Your task to perform on an android device: Go to location settings Image 0: 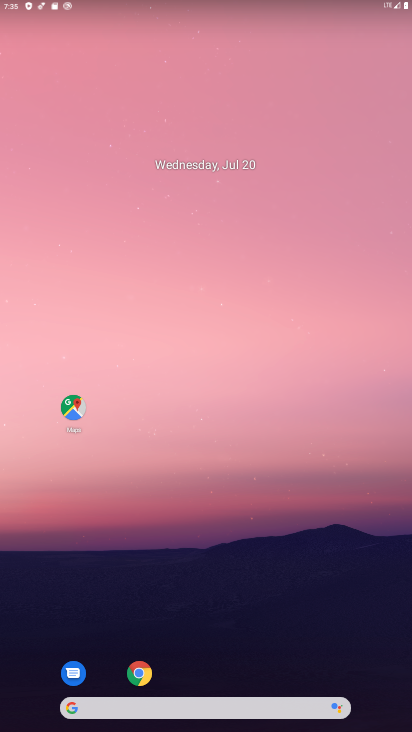
Step 0: drag from (245, 349) to (119, 14)
Your task to perform on an android device: Go to location settings Image 1: 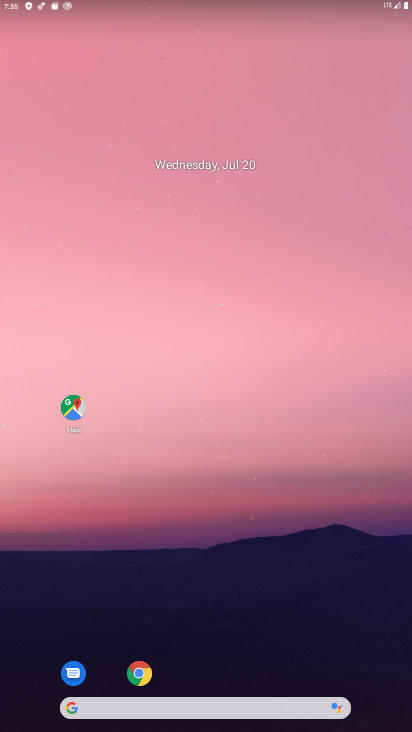
Step 1: drag from (300, 645) to (318, 93)
Your task to perform on an android device: Go to location settings Image 2: 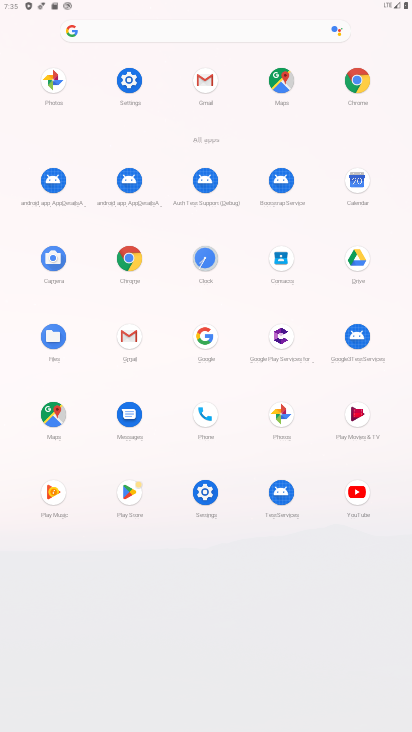
Step 2: click (132, 76)
Your task to perform on an android device: Go to location settings Image 3: 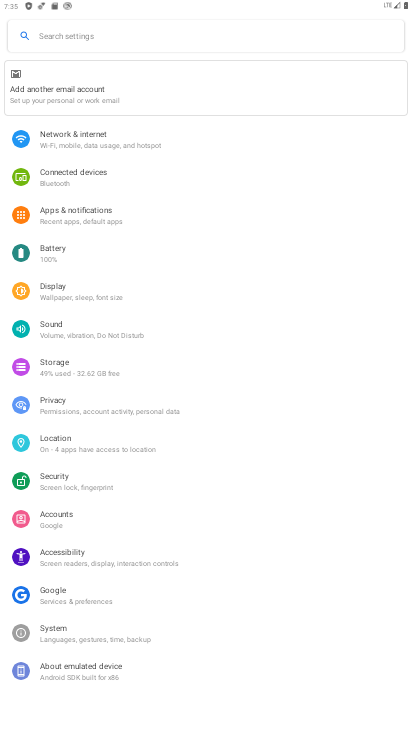
Step 3: click (66, 446)
Your task to perform on an android device: Go to location settings Image 4: 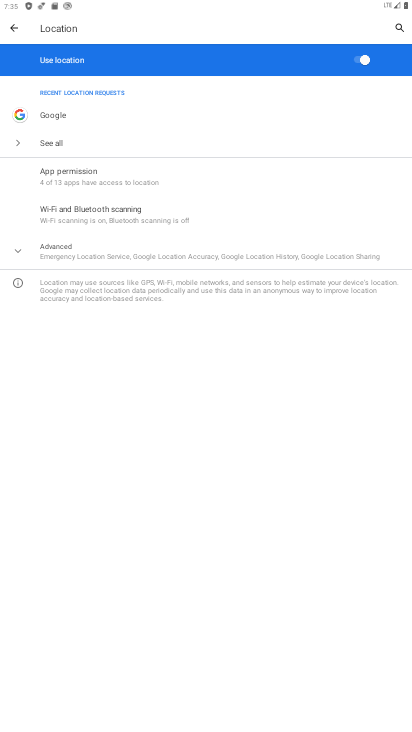
Step 4: task complete